Your task to perform on an android device: toggle pop-ups in chrome Image 0: 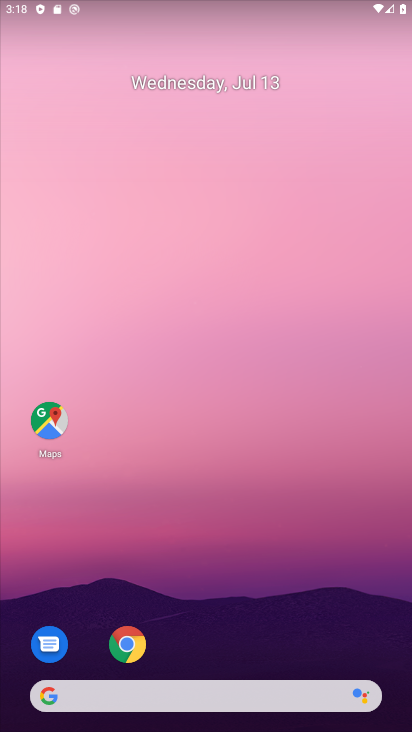
Step 0: click (135, 637)
Your task to perform on an android device: toggle pop-ups in chrome Image 1: 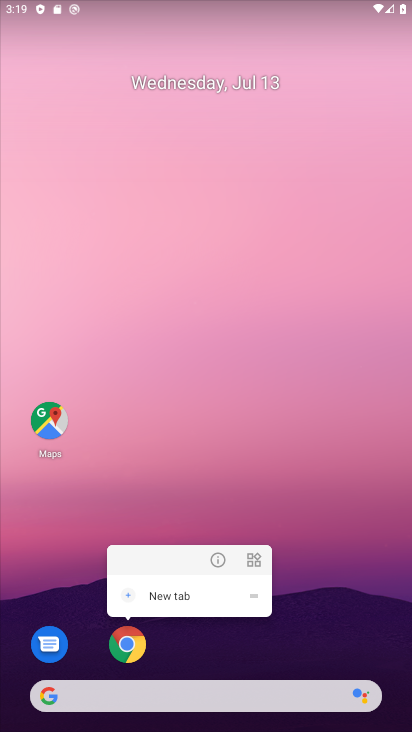
Step 1: click (120, 648)
Your task to perform on an android device: toggle pop-ups in chrome Image 2: 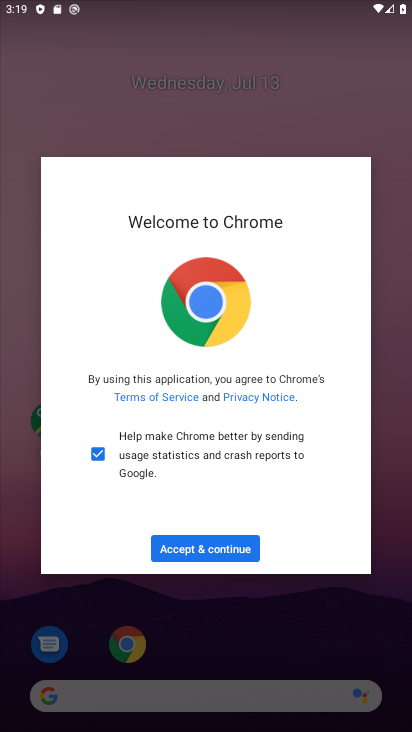
Step 2: click (223, 553)
Your task to perform on an android device: toggle pop-ups in chrome Image 3: 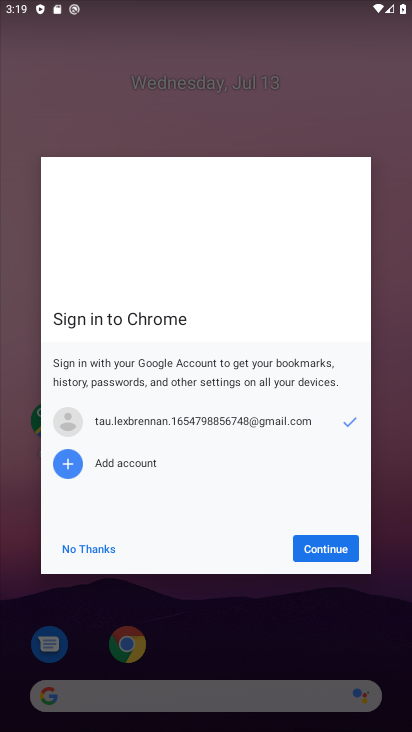
Step 3: click (296, 543)
Your task to perform on an android device: toggle pop-ups in chrome Image 4: 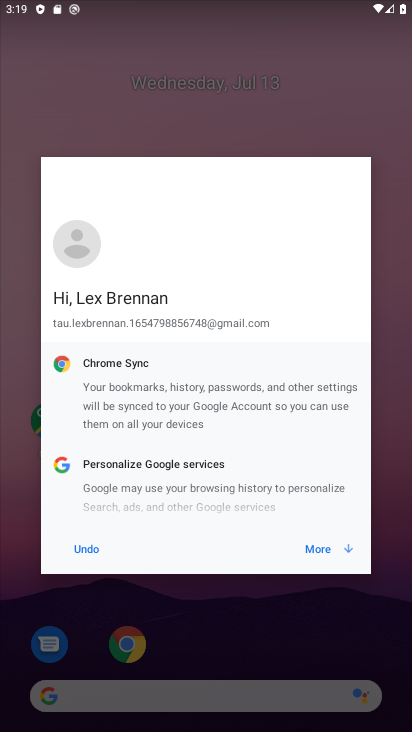
Step 4: click (296, 543)
Your task to perform on an android device: toggle pop-ups in chrome Image 5: 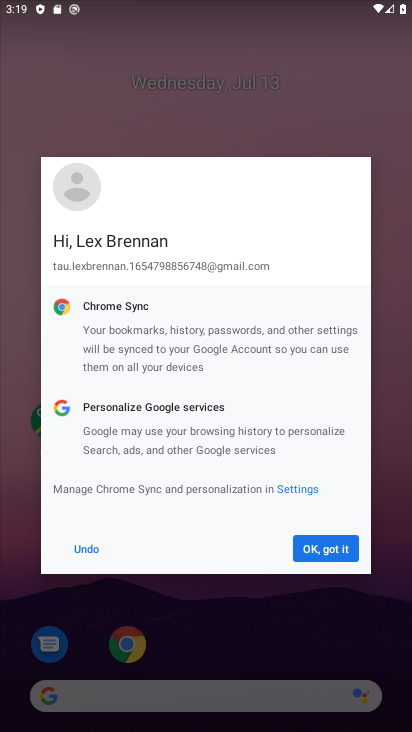
Step 5: click (296, 543)
Your task to perform on an android device: toggle pop-ups in chrome Image 6: 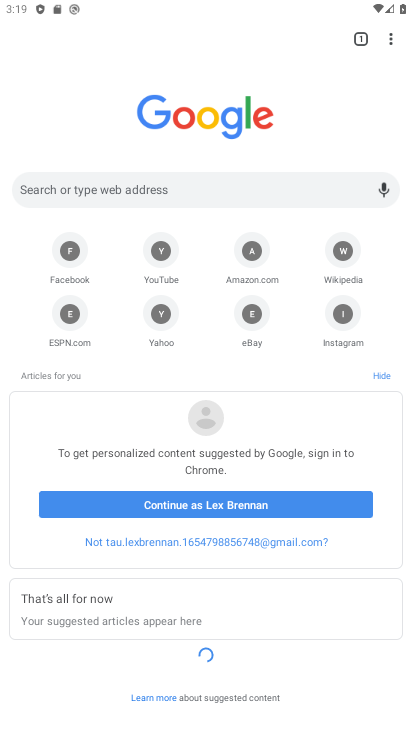
Step 6: click (381, 31)
Your task to perform on an android device: toggle pop-ups in chrome Image 7: 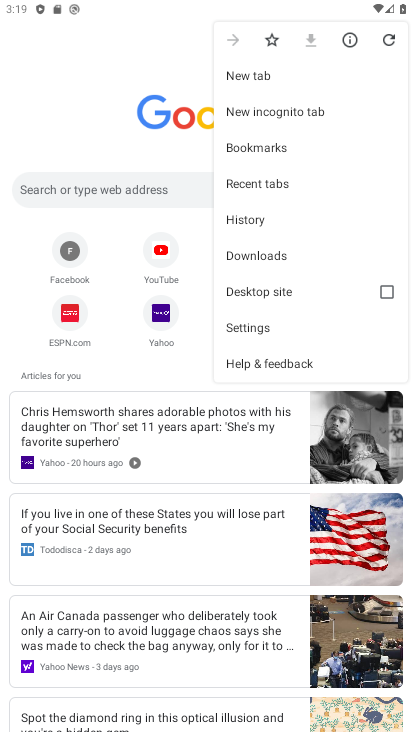
Step 7: click (268, 324)
Your task to perform on an android device: toggle pop-ups in chrome Image 8: 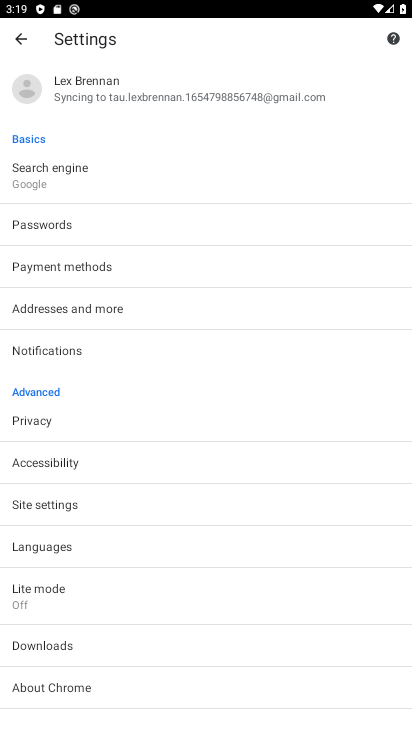
Step 8: click (68, 509)
Your task to perform on an android device: toggle pop-ups in chrome Image 9: 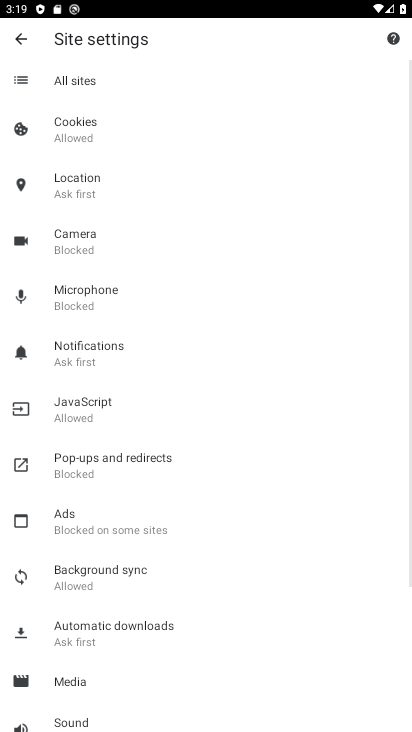
Step 9: click (121, 472)
Your task to perform on an android device: toggle pop-ups in chrome Image 10: 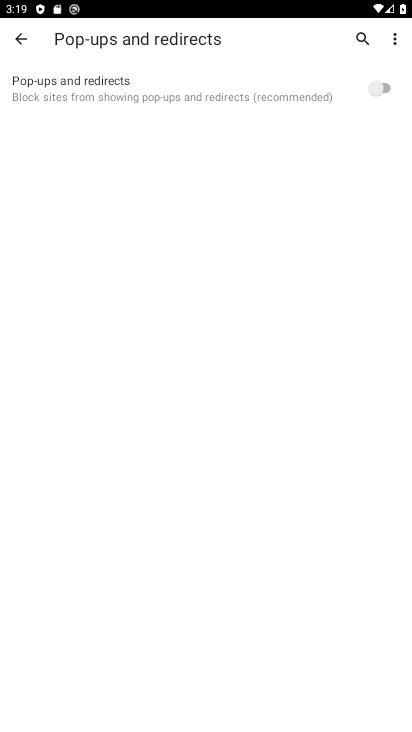
Step 10: click (379, 81)
Your task to perform on an android device: toggle pop-ups in chrome Image 11: 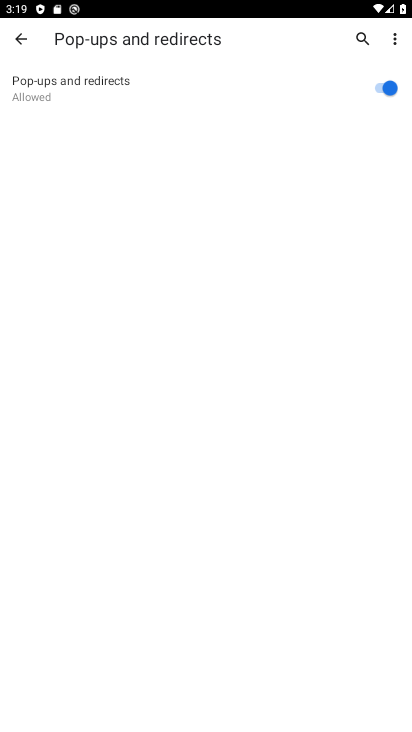
Step 11: task complete